Your task to perform on an android device: delete a single message in the gmail app Image 0: 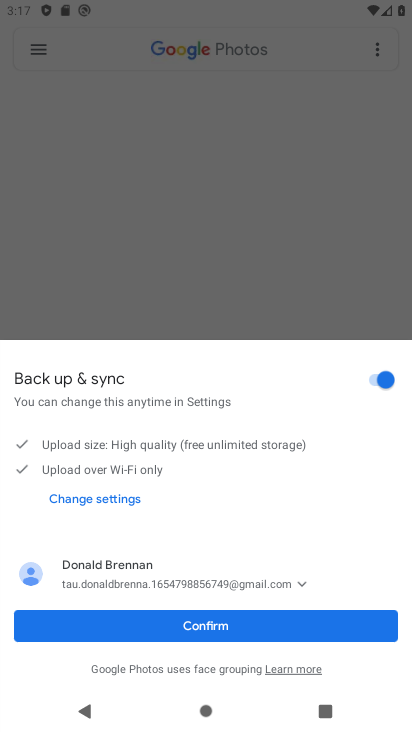
Step 0: press home button
Your task to perform on an android device: delete a single message in the gmail app Image 1: 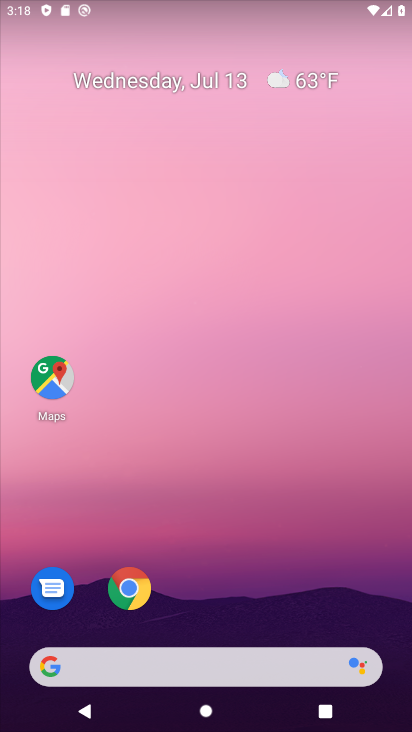
Step 1: drag from (343, 591) to (271, 38)
Your task to perform on an android device: delete a single message in the gmail app Image 2: 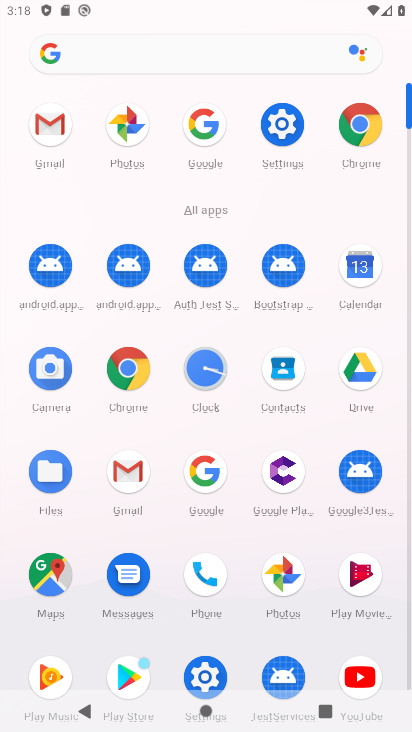
Step 2: click (43, 132)
Your task to perform on an android device: delete a single message in the gmail app Image 3: 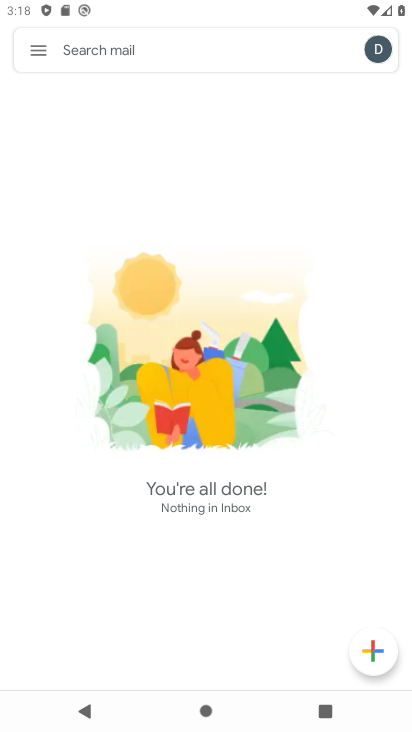
Step 3: task complete